Your task to perform on an android device: empty trash in google photos Image 0: 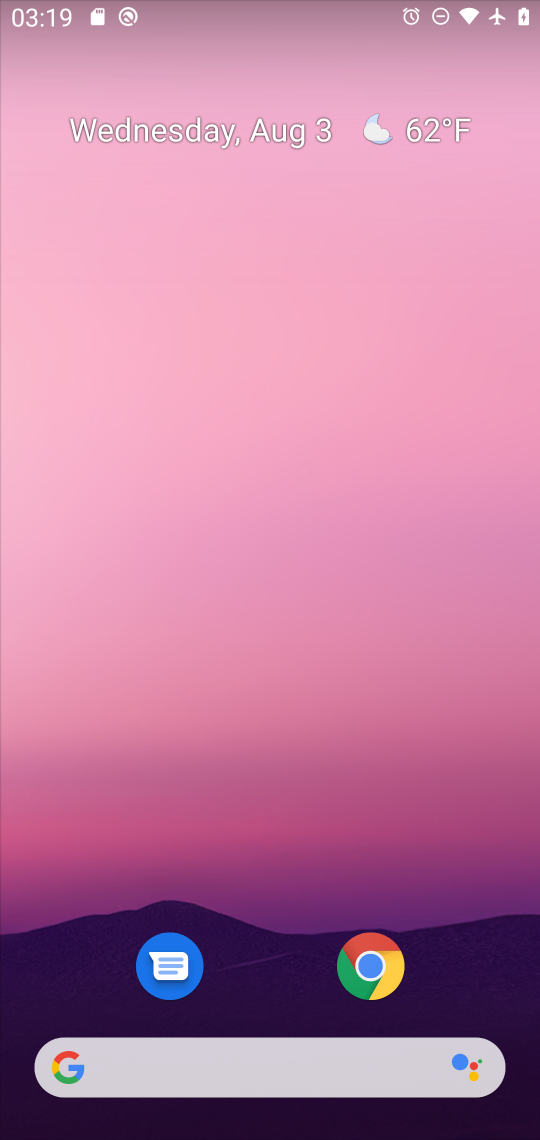
Step 0: drag from (278, 924) to (260, 317)
Your task to perform on an android device: empty trash in google photos Image 1: 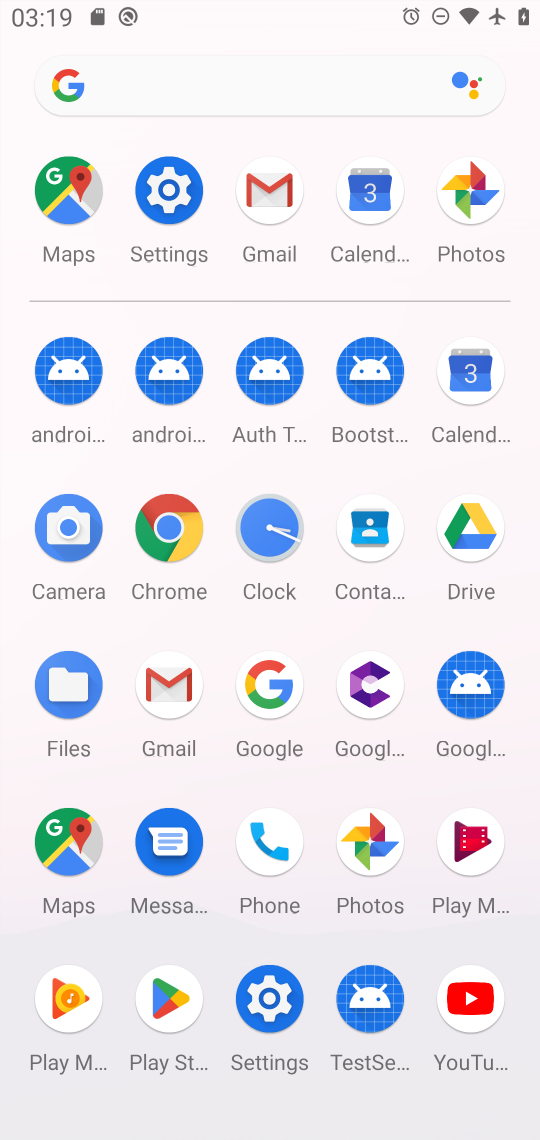
Step 1: click (474, 231)
Your task to perform on an android device: empty trash in google photos Image 2: 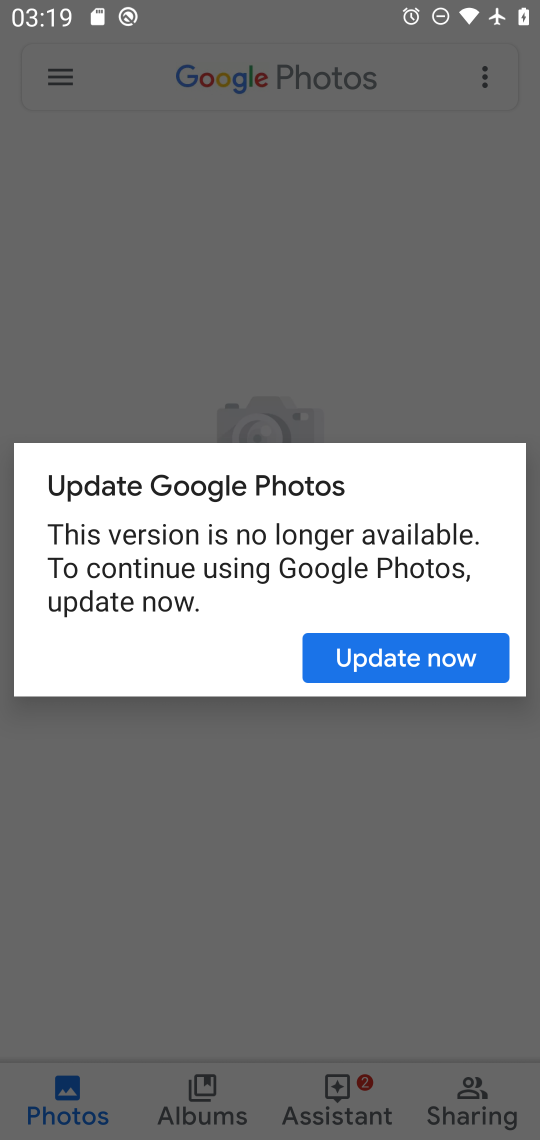
Step 2: click (412, 662)
Your task to perform on an android device: empty trash in google photos Image 3: 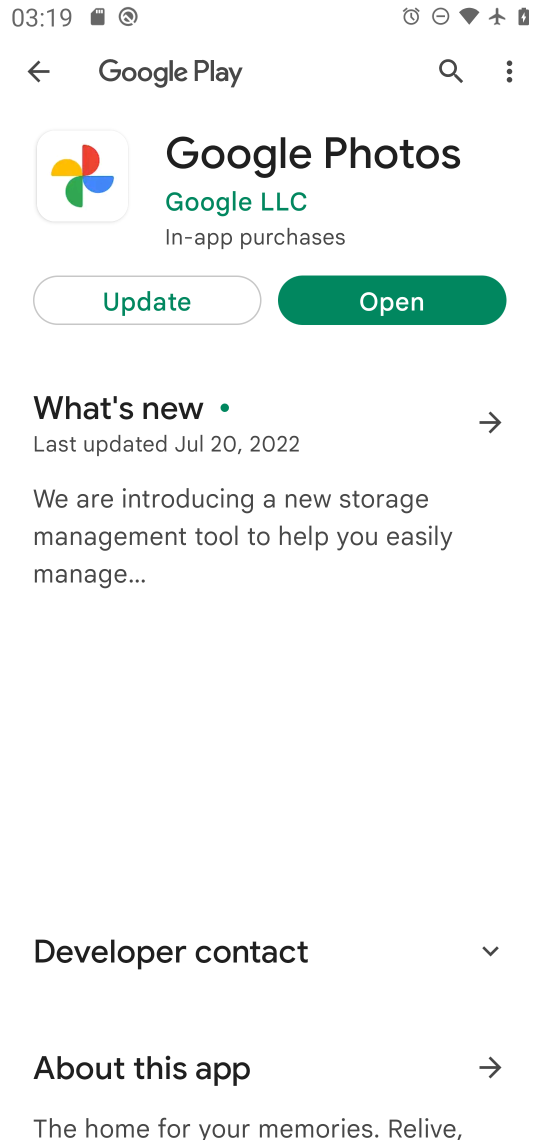
Step 3: click (410, 296)
Your task to perform on an android device: empty trash in google photos Image 4: 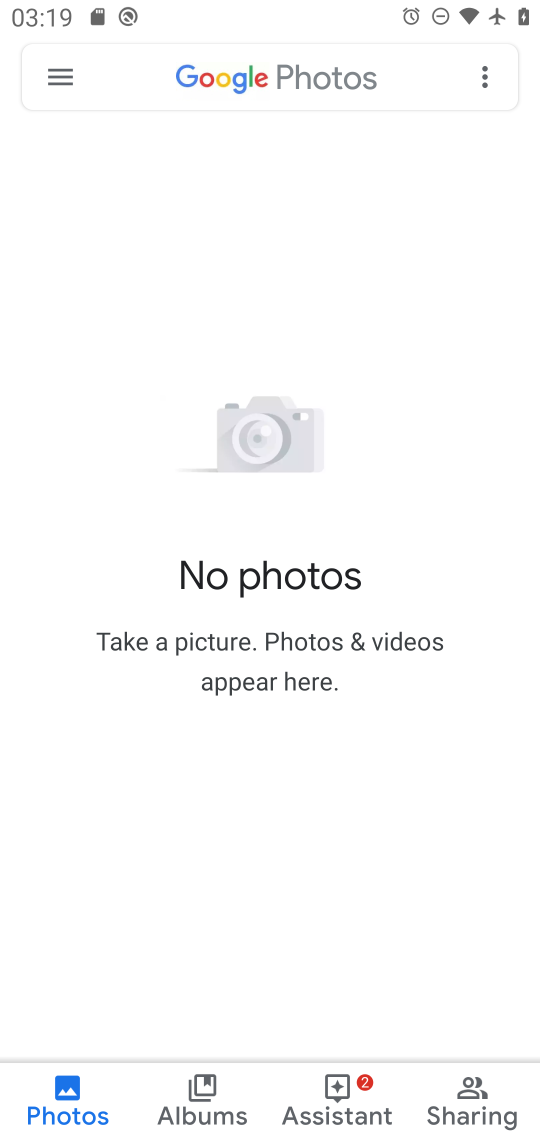
Step 4: click (71, 77)
Your task to perform on an android device: empty trash in google photos Image 5: 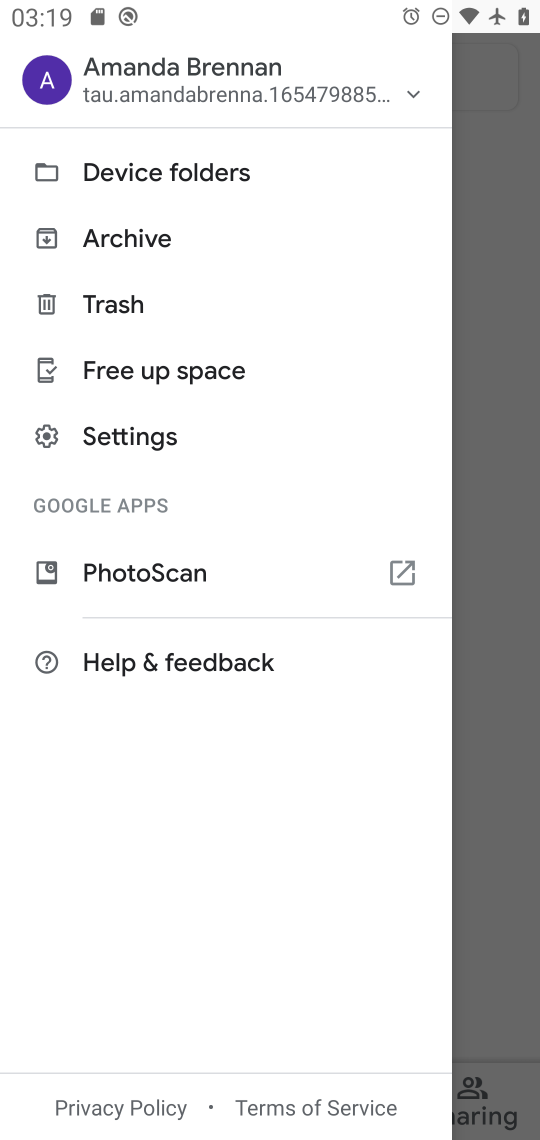
Step 5: click (174, 302)
Your task to perform on an android device: empty trash in google photos Image 6: 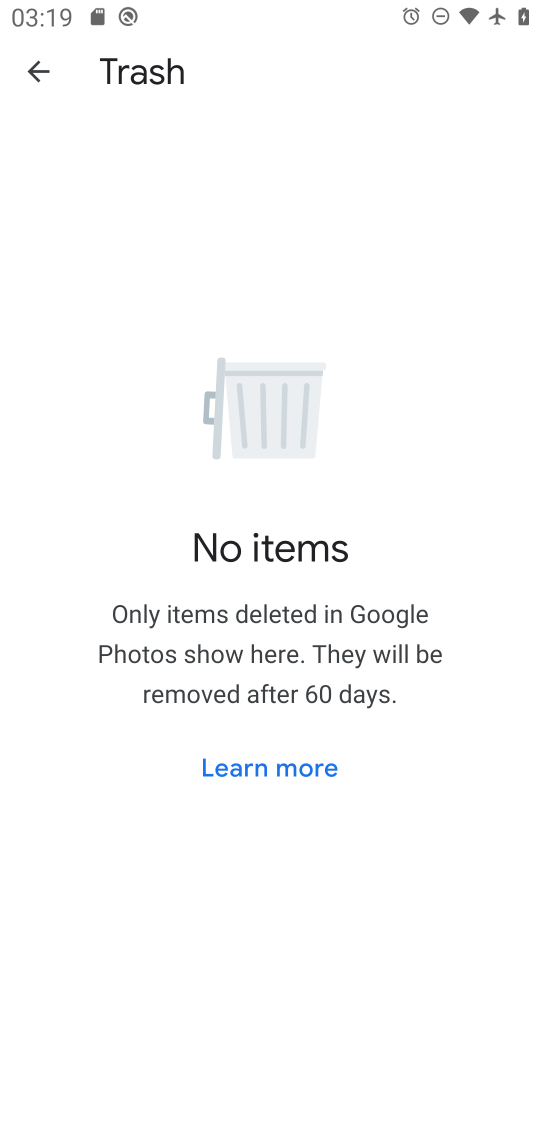
Step 6: task complete